Your task to perform on an android device: Search for usb-a on target.com, select the first entry, and add it to the cart. Image 0: 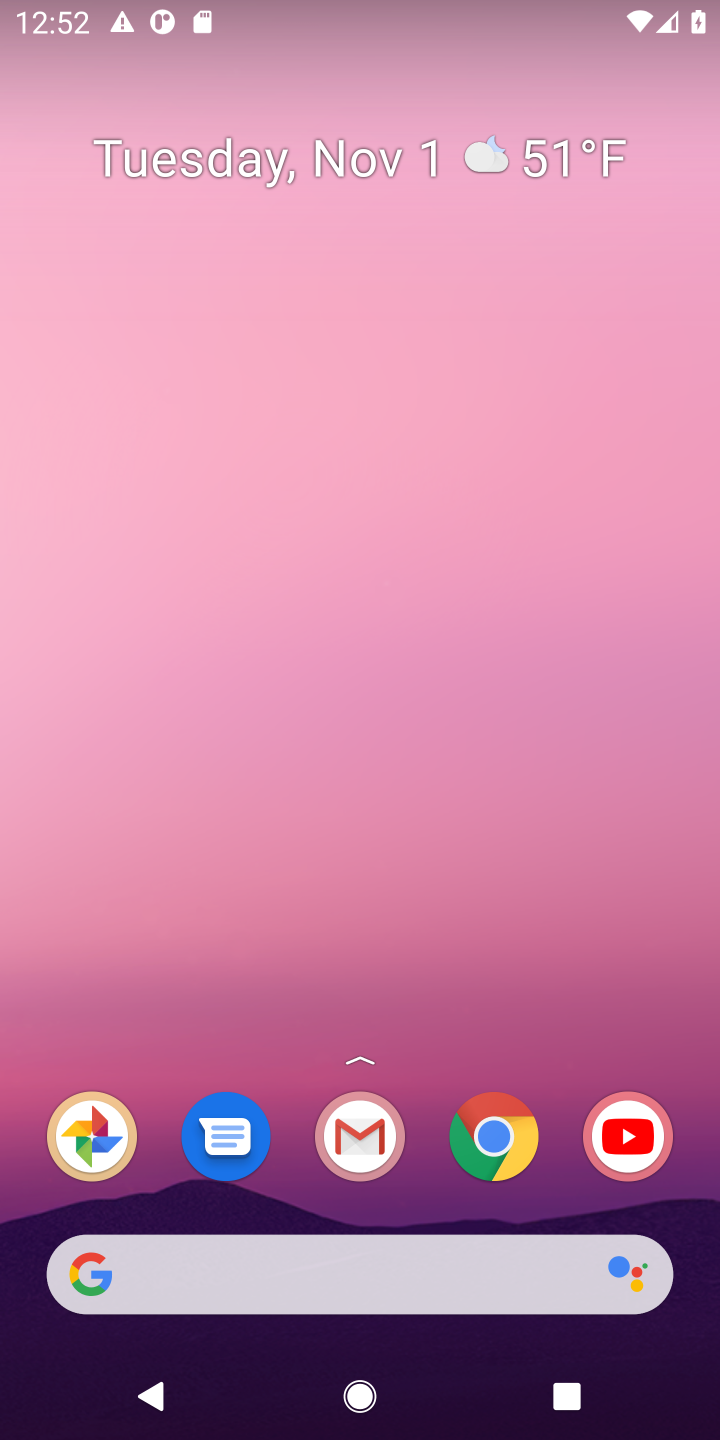
Step 0: press home button
Your task to perform on an android device: Search for usb-a on target.com, select the first entry, and add it to the cart. Image 1: 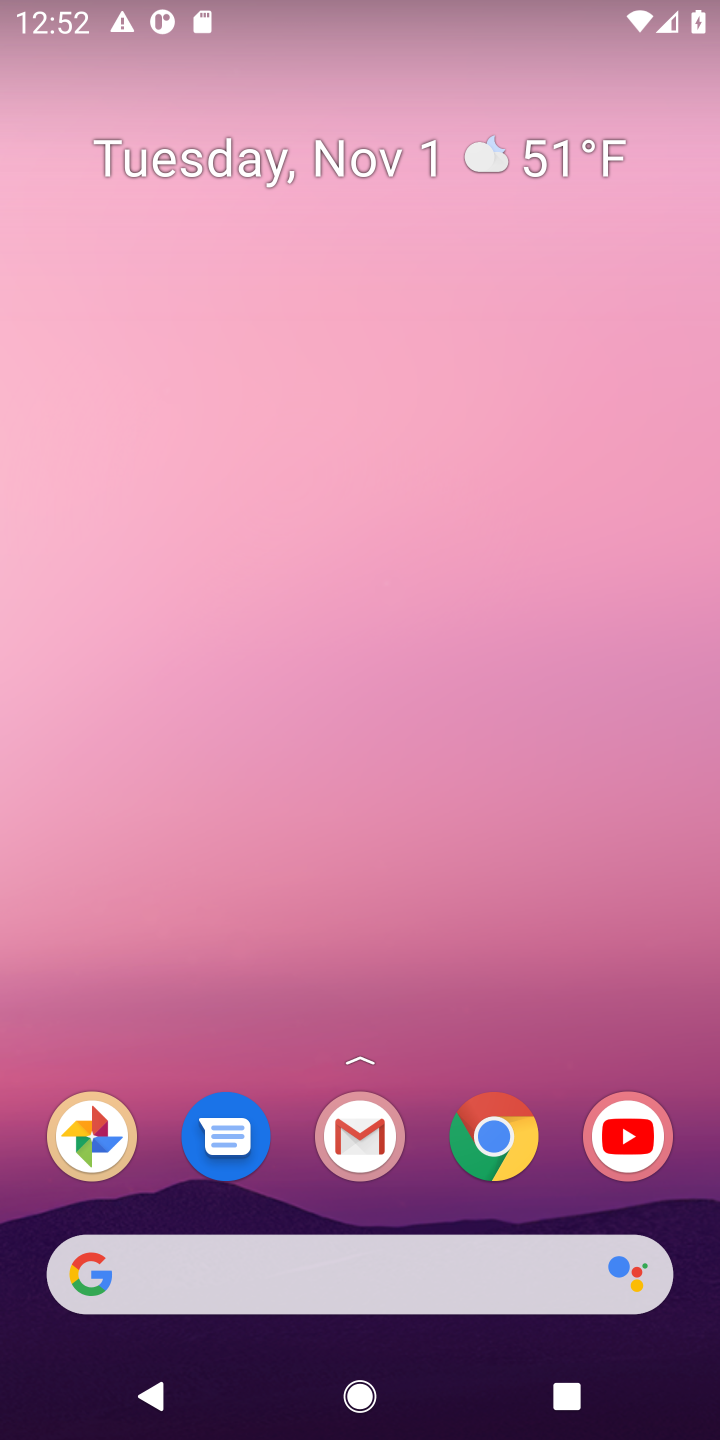
Step 1: click (144, 1264)
Your task to perform on an android device: Search for usb-a on target.com, select the first entry, and add it to the cart. Image 2: 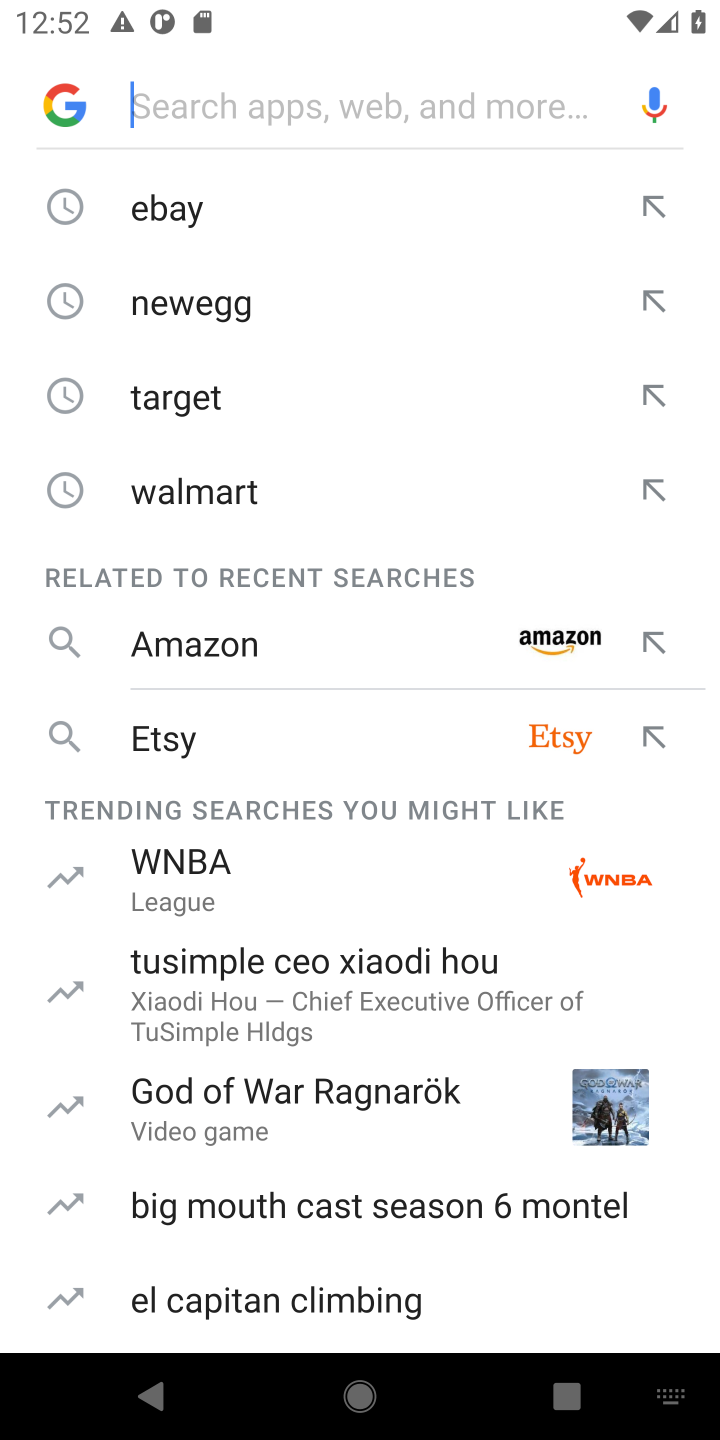
Step 2: type " target.com"
Your task to perform on an android device: Search for usb-a on target.com, select the first entry, and add it to the cart. Image 3: 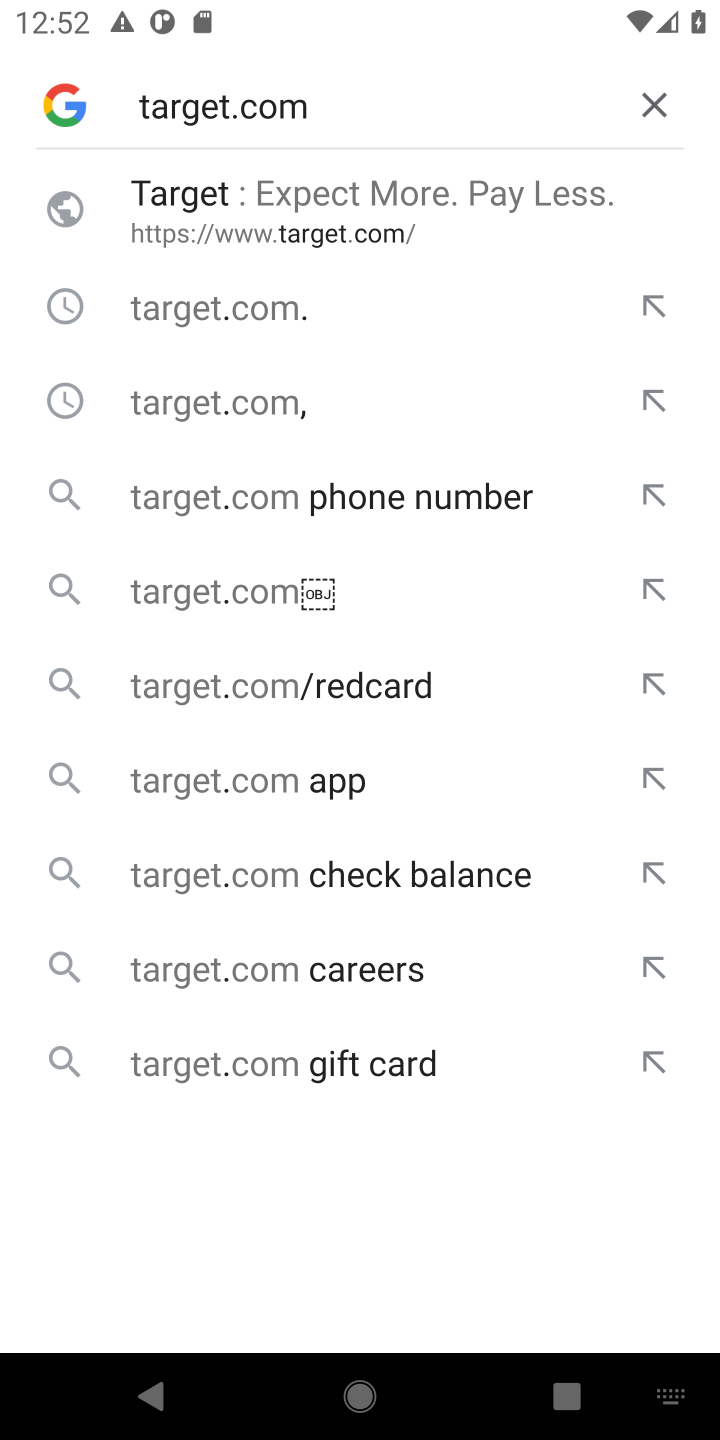
Step 3: press enter
Your task to perform on an android device: Search for usb-a on target.com, select the first entry, and add it to the cart. Image 4: 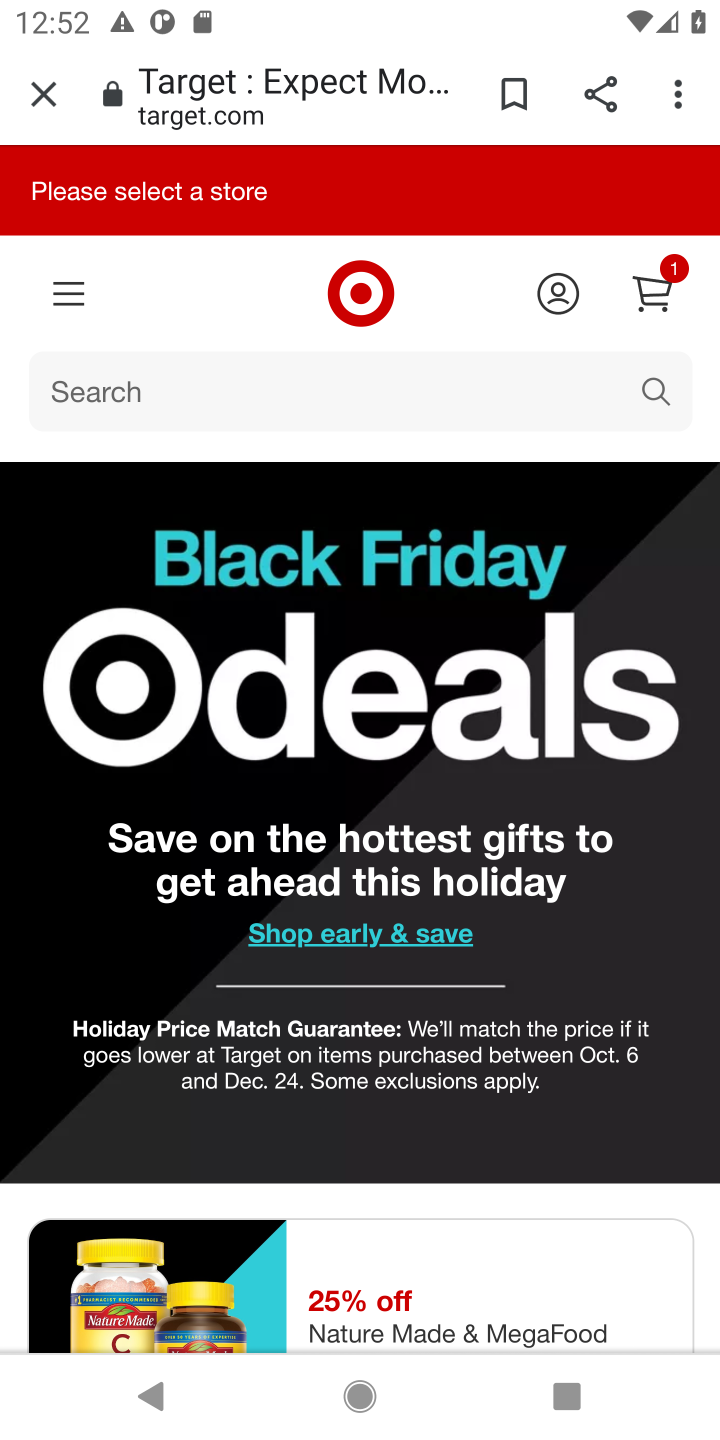
Step 4: click (86, 386)
Your task to perform on an android device: Search for usb-a on target.com, select the first entry, and add it to the cart. Image 5: 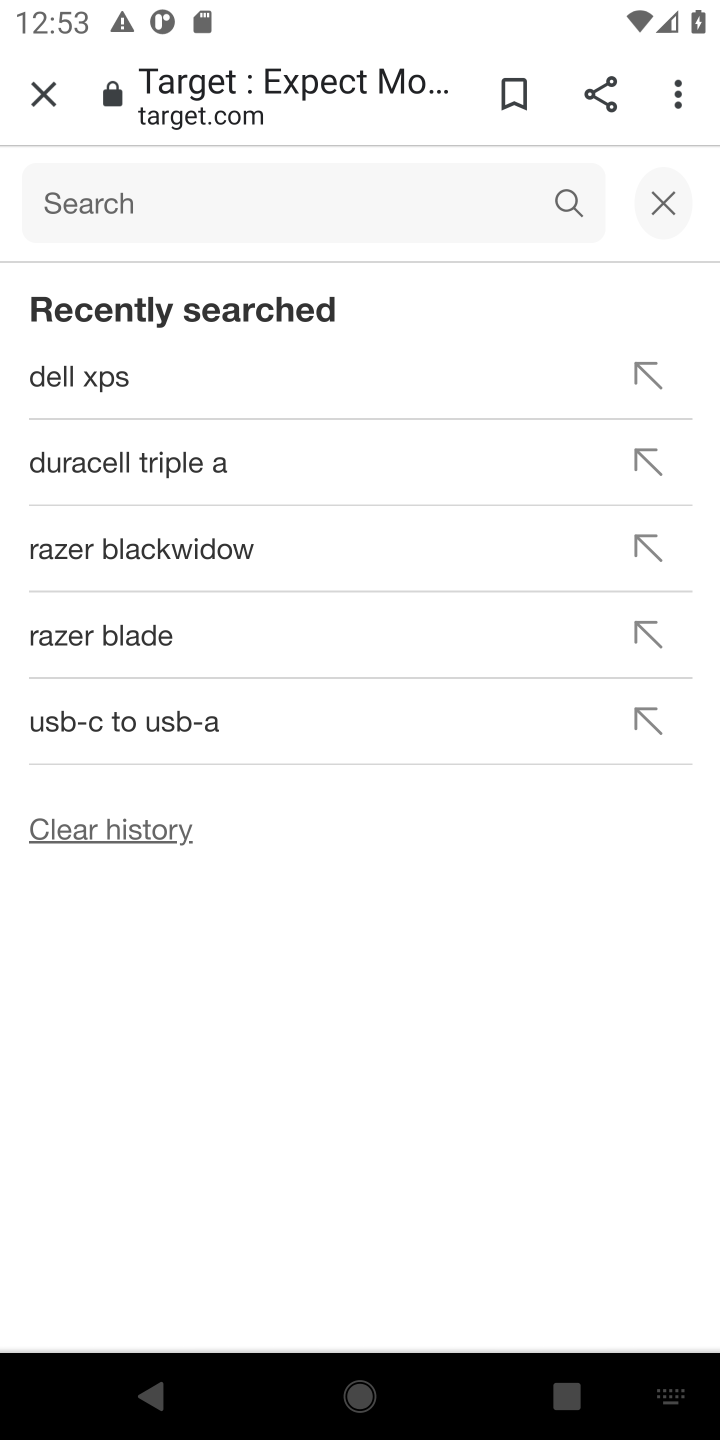
Step 5: click (1, 1431)
Your task to perform on an android device: Search for usb-a on target.com, select the first entry, and add it to the cart. Image 6: 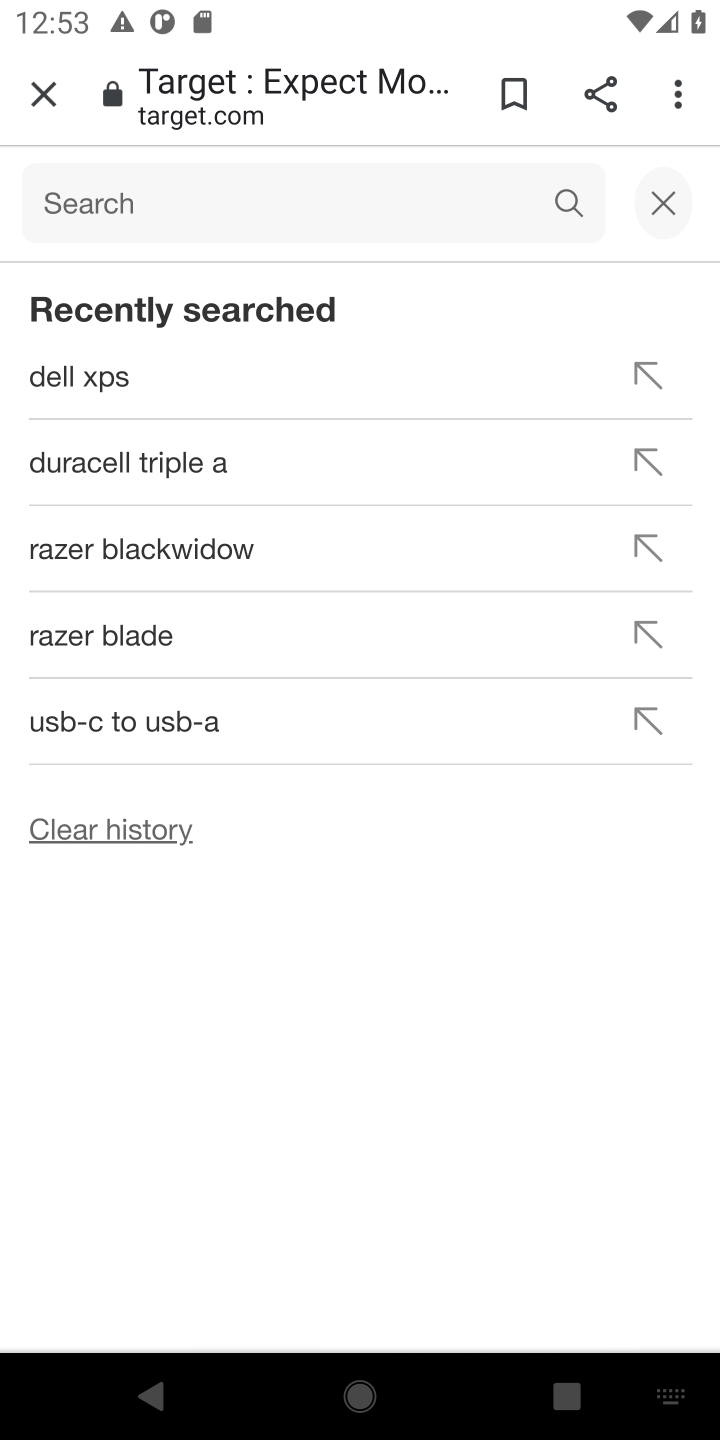
Step 6: press enter
Your task to perform on an android device: Search for usb-a on target.com, select the first entry, and add it to the cart. Image 7: 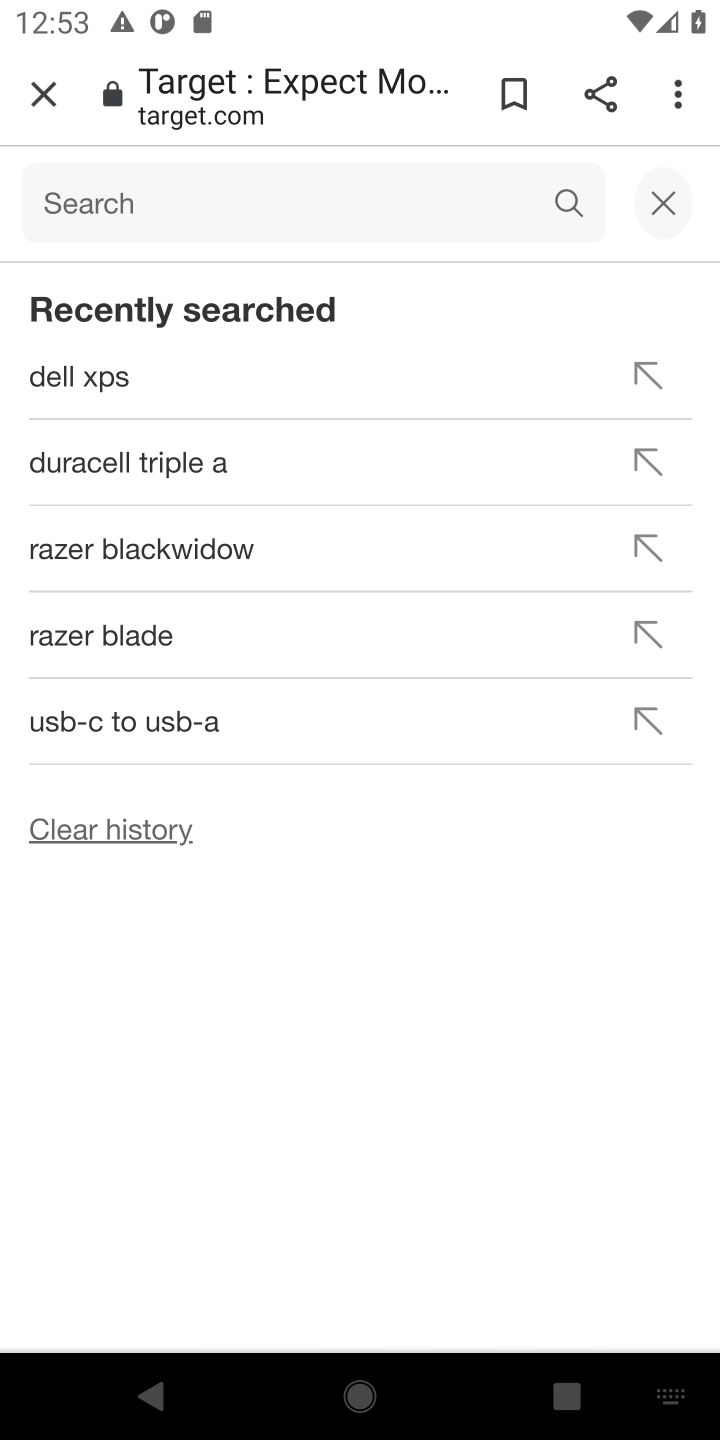
Step 7: type "usb-a"
Your task to perform on an android device: Search for usb-a on target.com, select the first entry, and add it to the cart. Image 8: 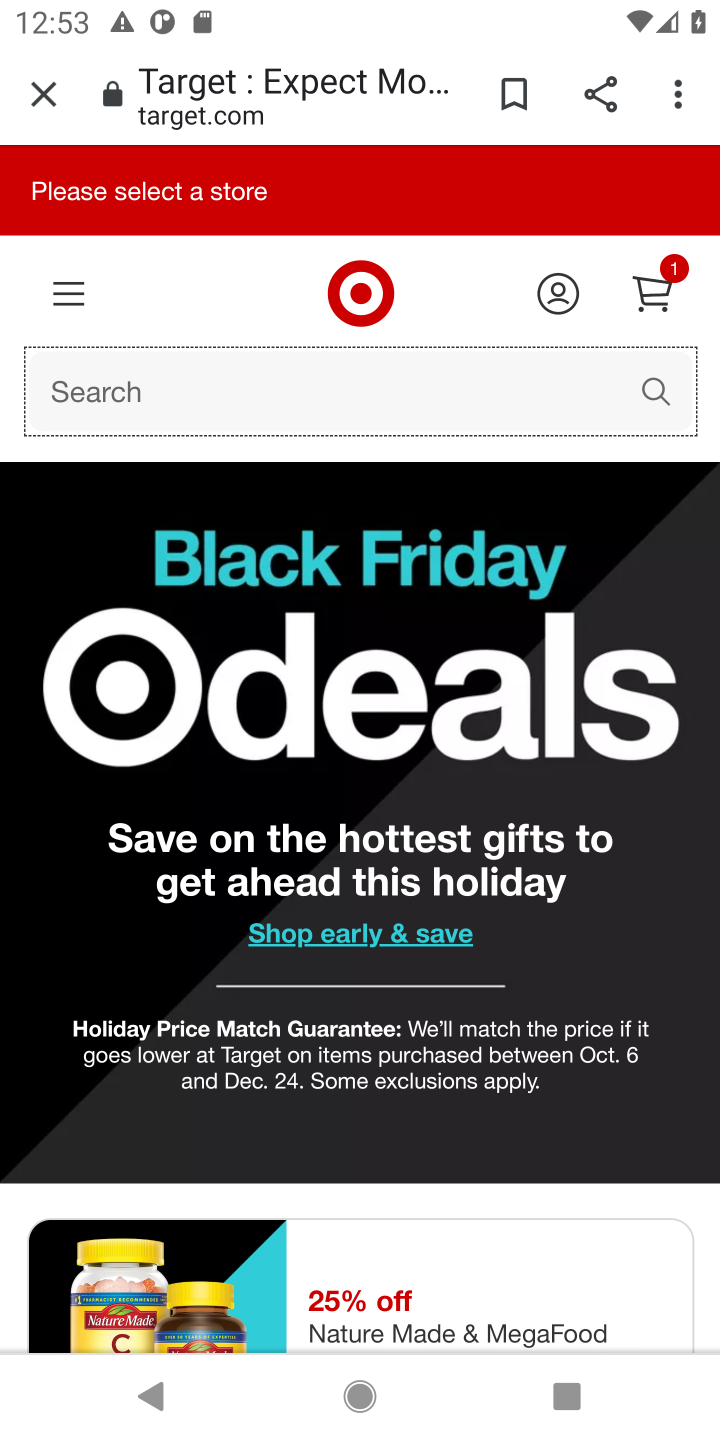
Step 8: click (184, 382)
Your task to perform on an android device: Search for usb-a on target.com, select the first entry, and add it to the cart. Image 9: 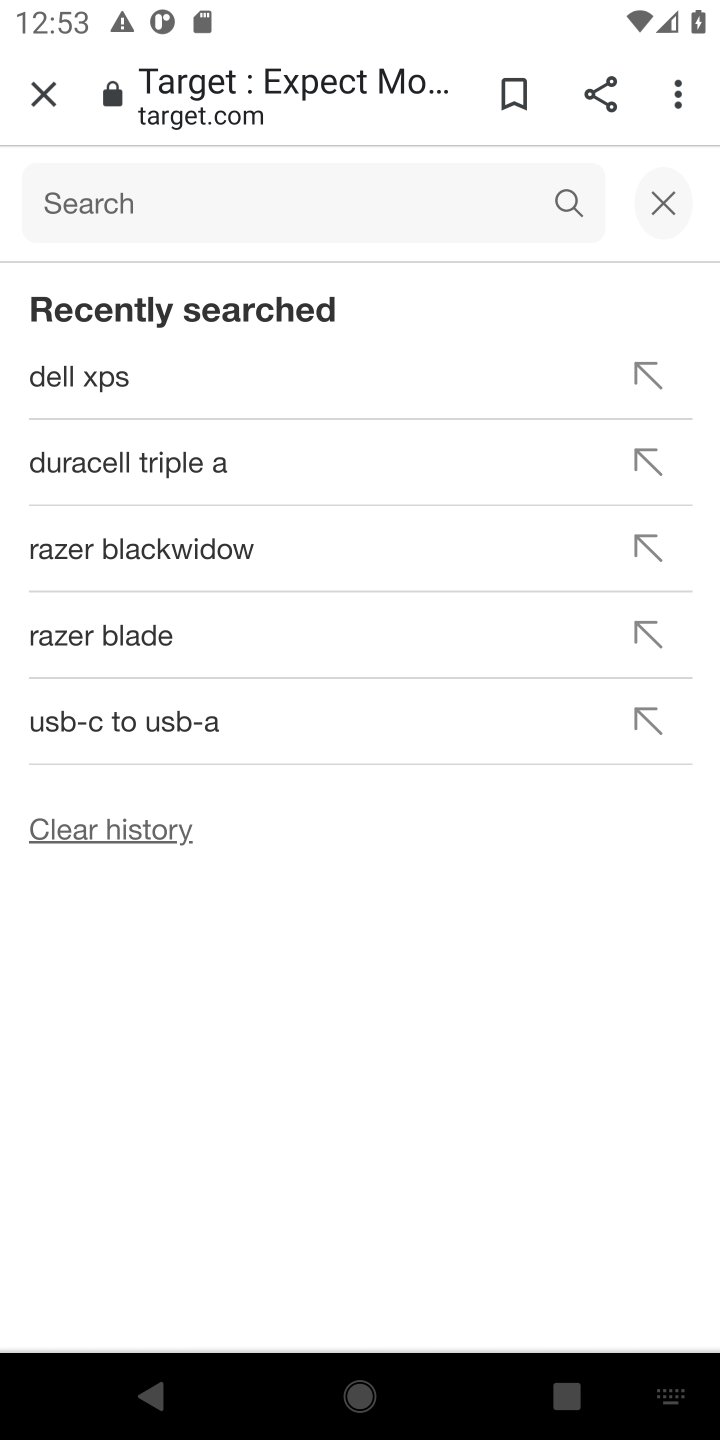
Step 9: press enter
Your task to perform on an android device: Search for usb-a on target.com, select the first entry, and add it to the cart. Image 10: 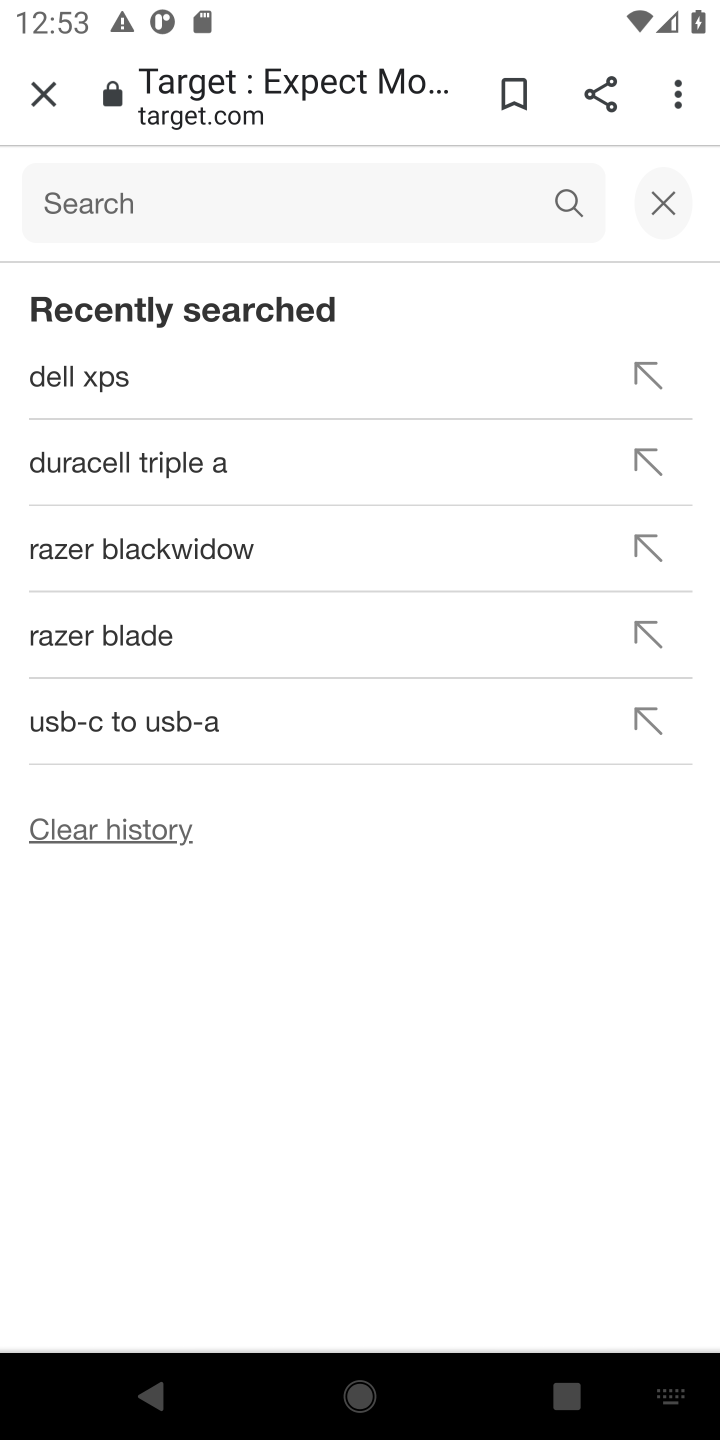
Step 10: type "usb a"
Your task to perform on an android device: Search for usb-a on target.com, select the first entry, and add it to the cart. Image 11: 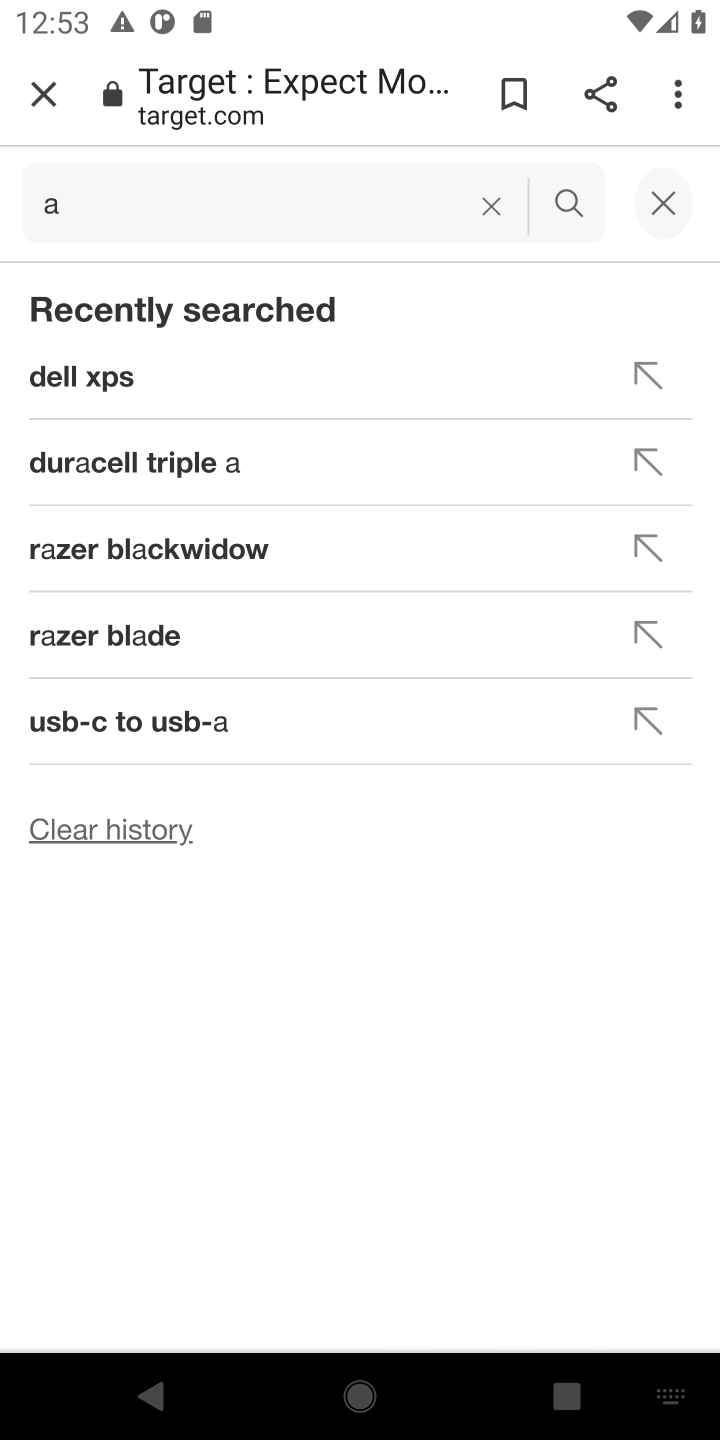
Step 11: click (491, 208)
Your task to perform on an android device: Search for usb-a on target.com, select the first entry, and add it to the cart. Image 12: 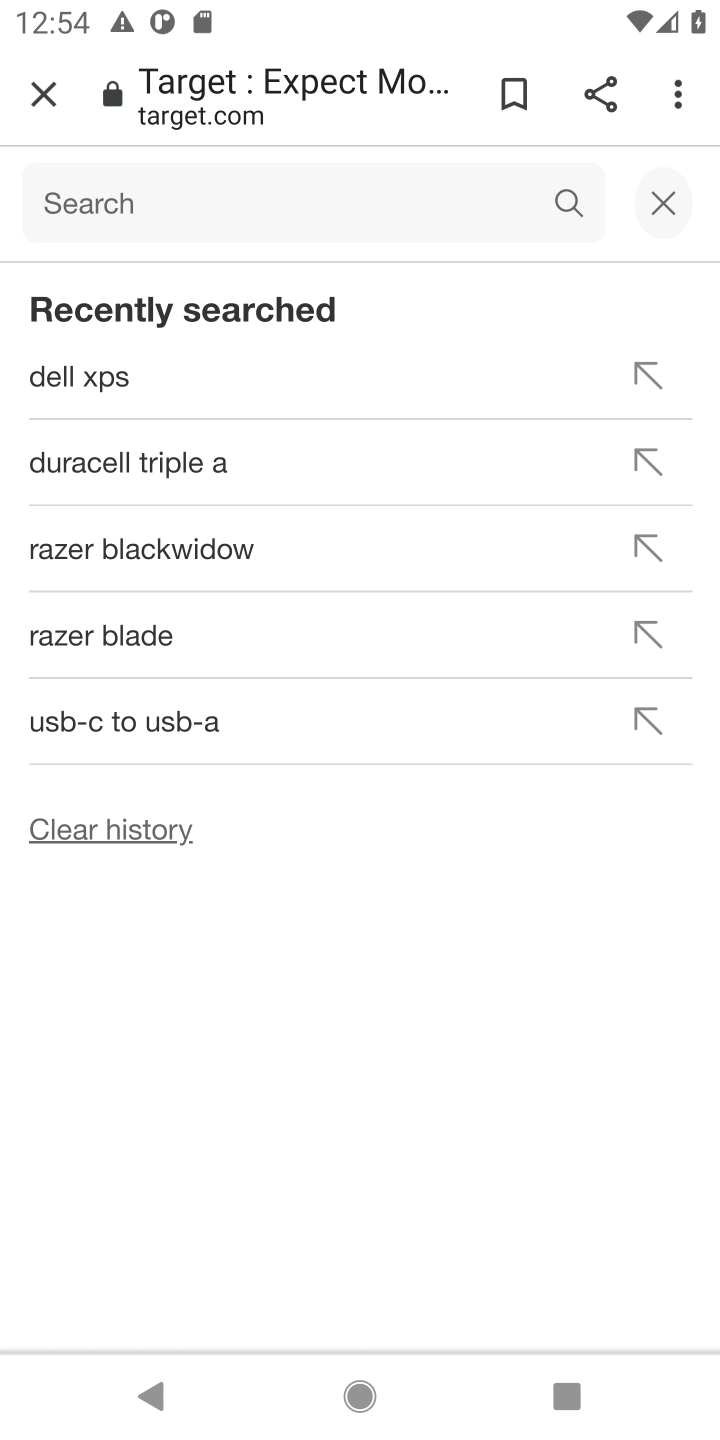
Step 12: type "usb a"
Your task to perform on an android device: Search for usb-a on target.com, select the first entry, and add it to the cart. Image 13: 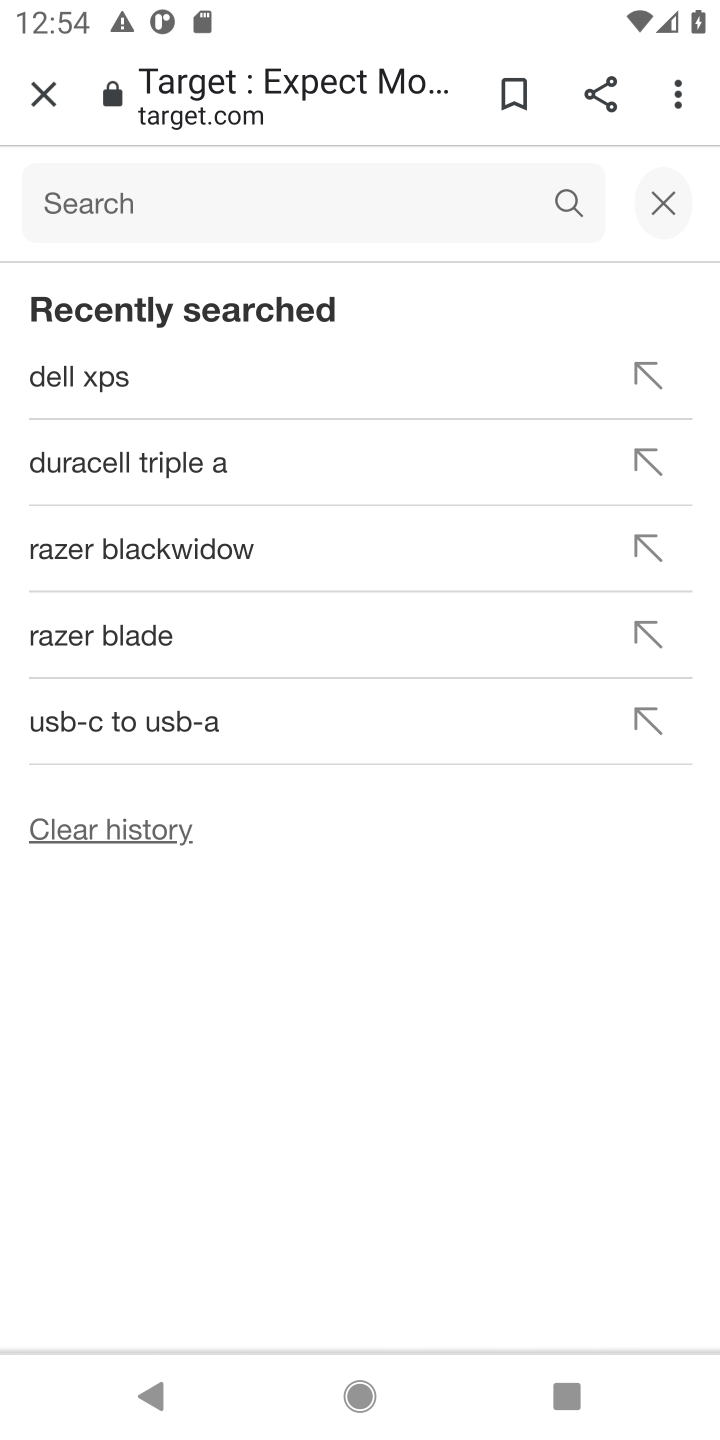
Step 13: task complete